Your task to perform on an android device: Search for seafood restaurants on Google Maps Image 0: 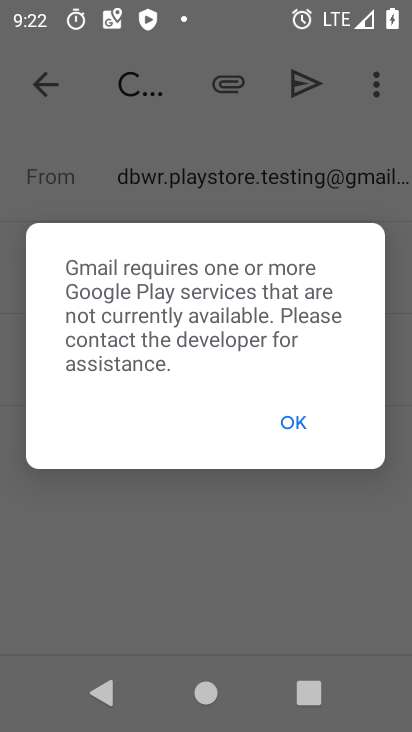
Step 0: click (219, 139)
Your task to perform on an android device: Search for seafood restaurants on Google Maps Image 1: 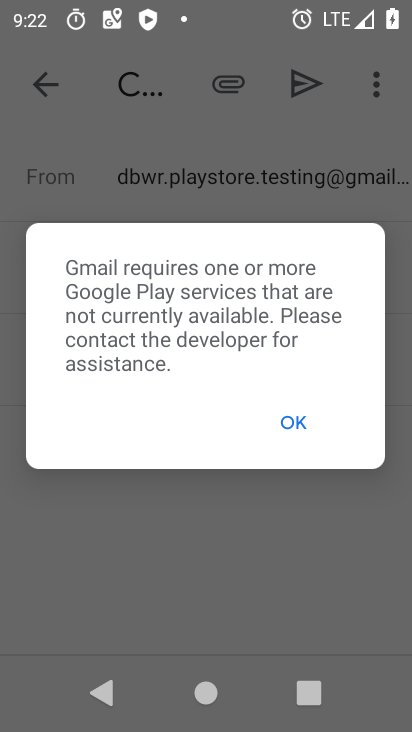
Step 1: click (219, 139)
Your task to perform on an android device: Search for seafood restaurants on Google Maps Image 2: 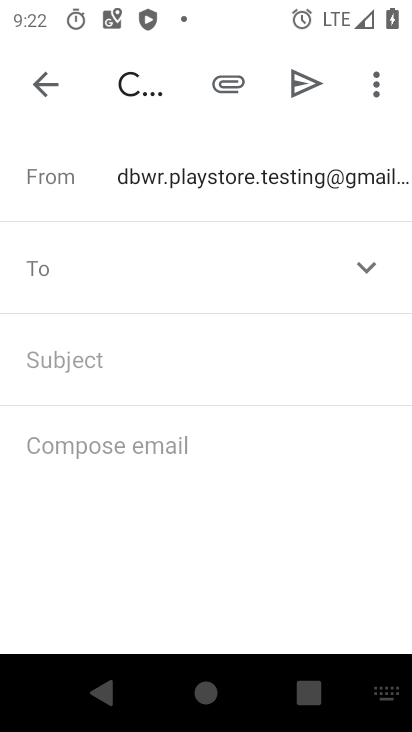
Step 2: press home button
Your task to perform on an android device: Search for seafood restaurants on Google Maps Image 3: 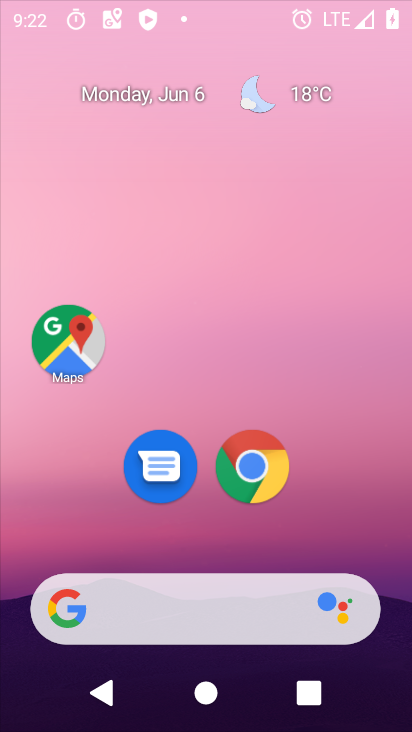
Step 3: drag from (200, 581) to (294, 151)
Your task to perform on an android device: Search for seafood restaurants on Google Maps Image 4: 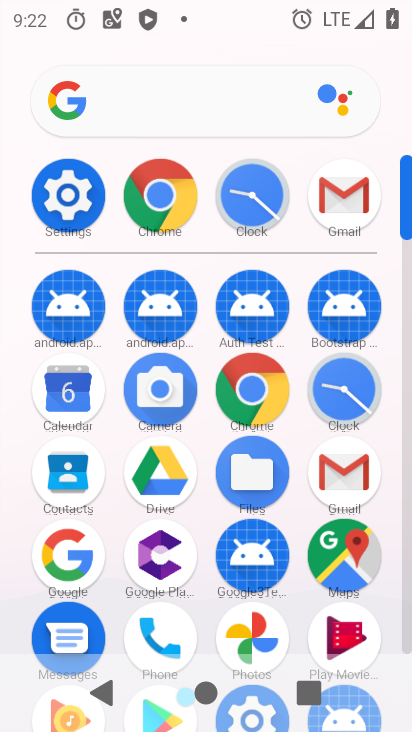
Step 4: click (333, 576)
Your task to perform on an android device: Search for seafood restaurants on Google Maps Image 5: 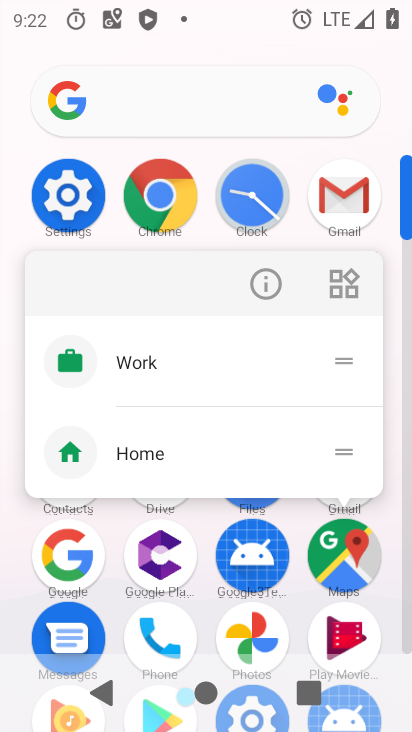
Step 5: click (264, 290)
Your task to perform on an android device: Search for seafood restaurants on Google Maps Image 6: 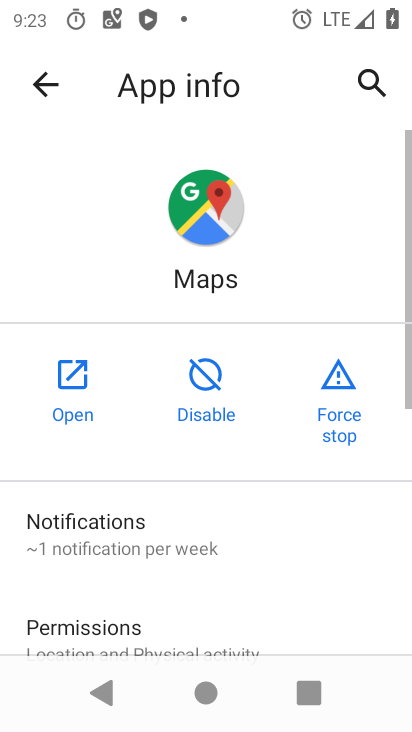
Step 6: click (83, 416)
Your task to perform on an android device: Search for seafood restaurants on Google Maps Image 7: 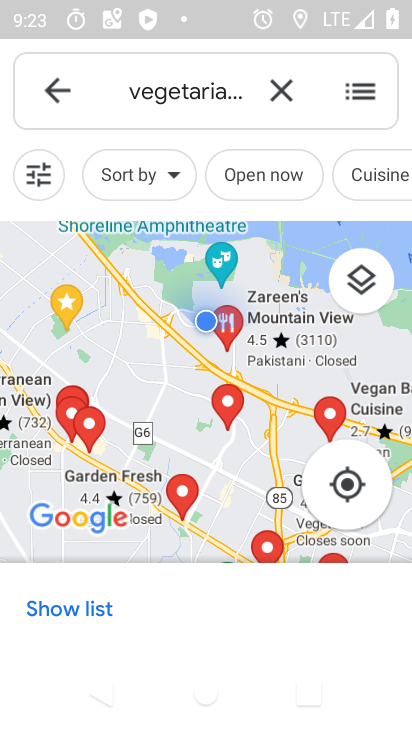
Step 7: click (267, 92)
Your task to perform on an android device: Search for seafood restaurants on Google Maps Image 8: 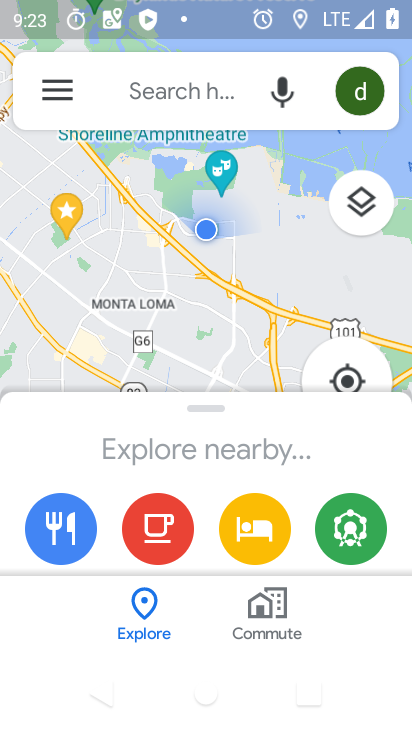
Step 8: click (140, 86)
Your task to perform on an android device: Search for seafood restaurants on Google Maps Image 9: 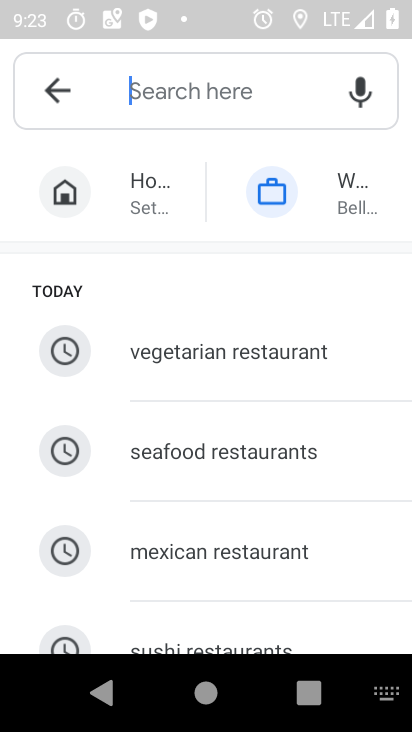
Step 9: click (165, 444)
Your task to perform on an android device: Search for seafood restaurants on Google Maps Image 10: 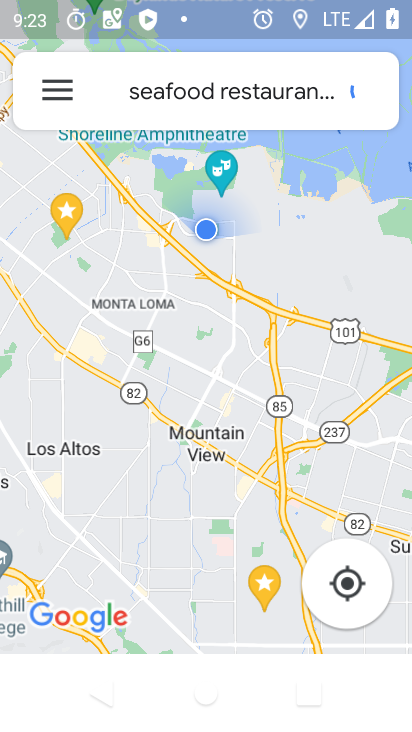
Step 10: task complete